Your task to perform on an android device: Open the map Image 0: 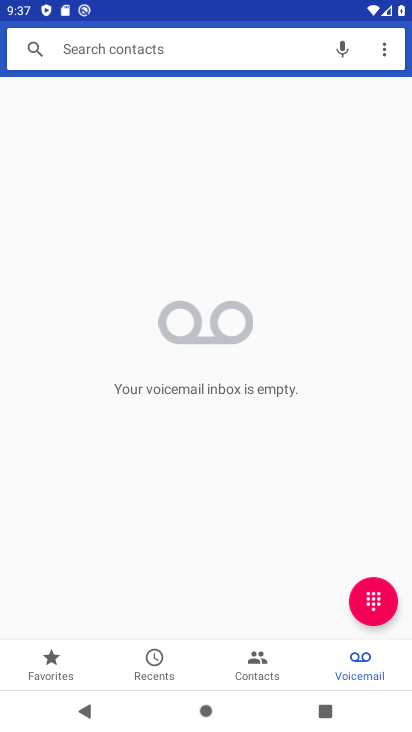
Step 0: press back button
Your task to perform on an android device: Open the map Image 1: 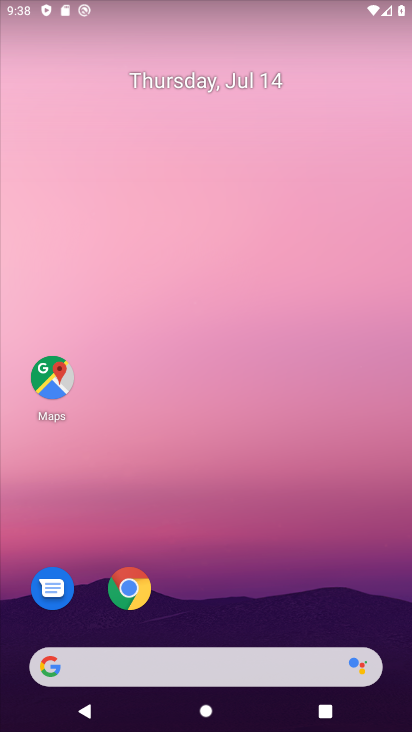
Step 1: click (50, 375)
Your task to perform on an android device: Open the map Image 2: 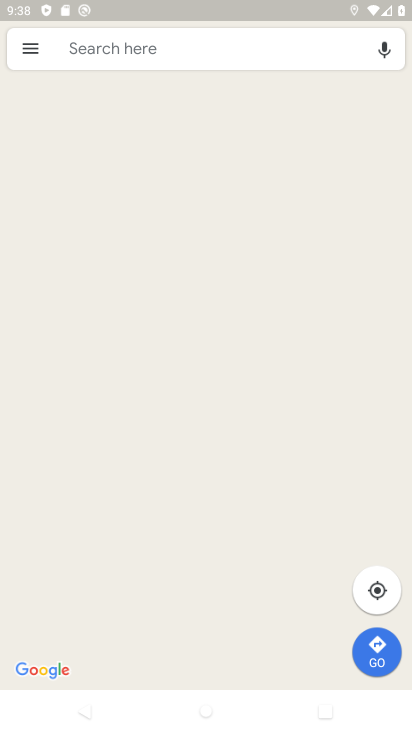
Step 2: task complete